Your task to perform on an android device: choose inbox layout in the gmail app Image 0: 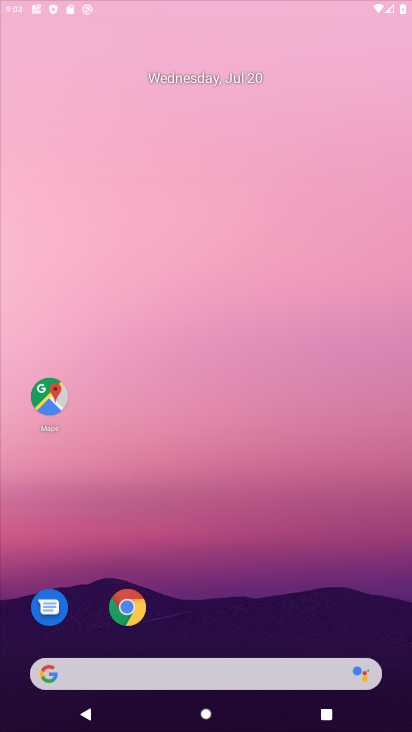
Step 0: click (57, 410)
Your task to perform on an android device: choose inbox layout in the gmail app Image 1: 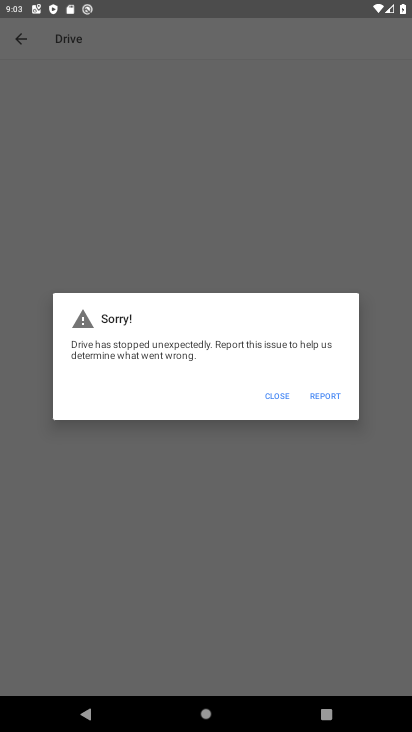
Step 1: press home button
Your task to perform on an android device: choose inbox layout in the gmail app Image 2: 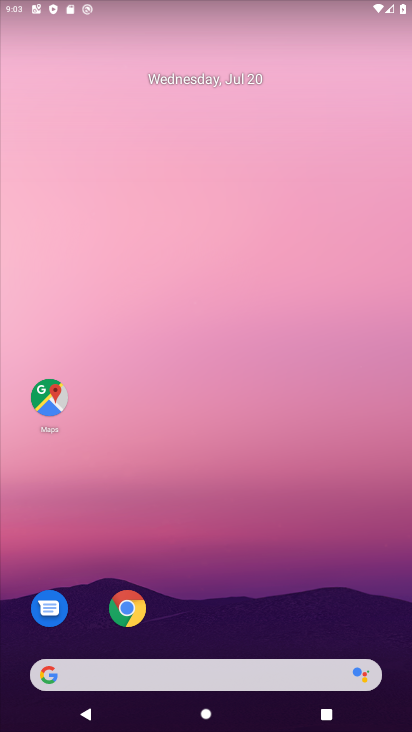
Step 2: drag from (262, 480) to (172, 3)
Your task to perform on an android device: choose inbox layout in the gmail app Image 3: 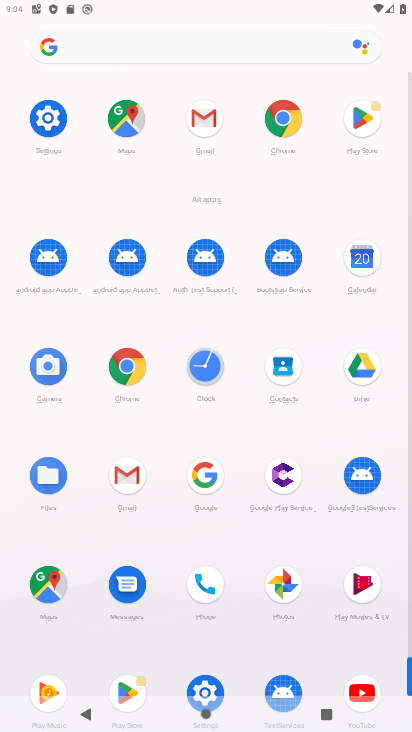
Step 3: click (129, 476)
Your task to perform on an android device: choose inbox layout in the gmail app Image 4: 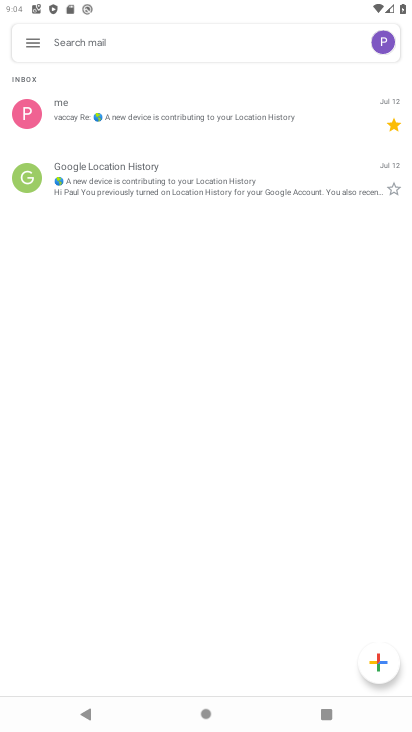
Step 4: click (28, 37)
Your task to perform on an android device: choose inbox layout in the gmail app Image 5: 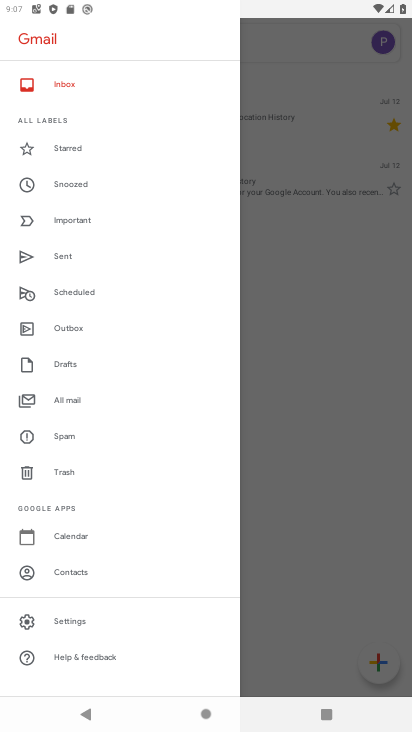
Step 5: click (64, 623)
Your task to perform on an android device: choose inbox layout in the gmail app Image 6: 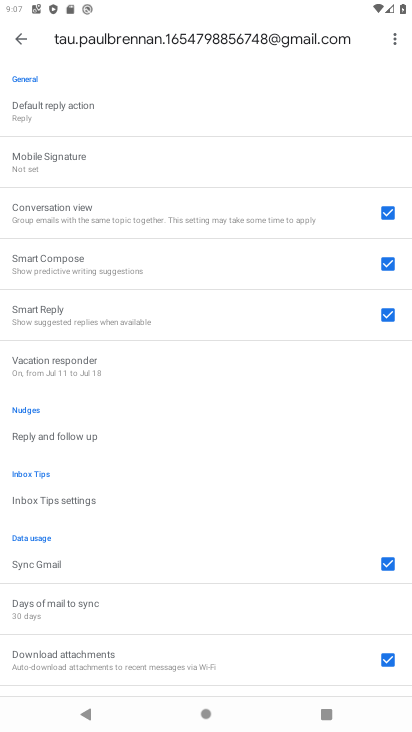
Step 6: drag from (194, 240) to (187, 725)
Your task to perform on an android device: choose inbox layout in the gmail app Image 7: 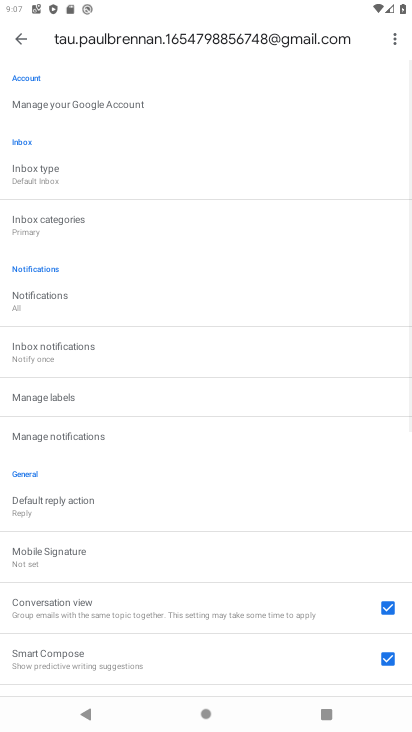
Step 7: click (55, 182)
Your task to perform on an android device: choose inbox layout in the gmail app Image 8: 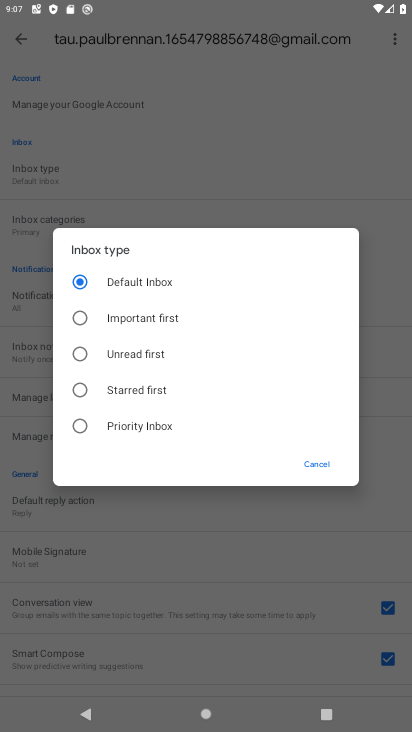
Step 8: click (247, 170)
Your task to perform on an android device: choose inbox layout in the gmail app Image 9: 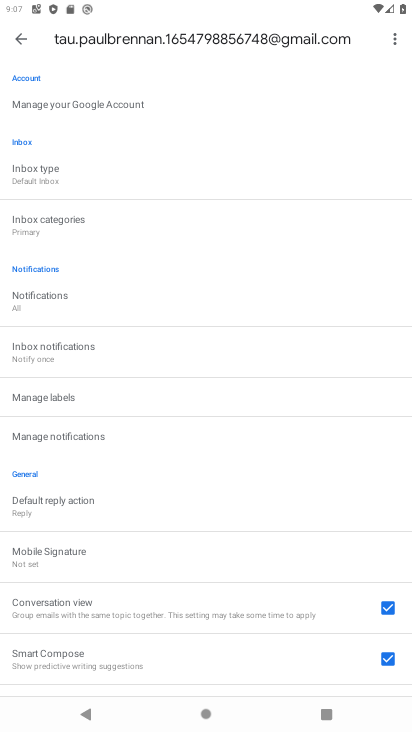
Step 9: task complete